Your task to perform on an android device: turn on translation in the chrome app Image 0: 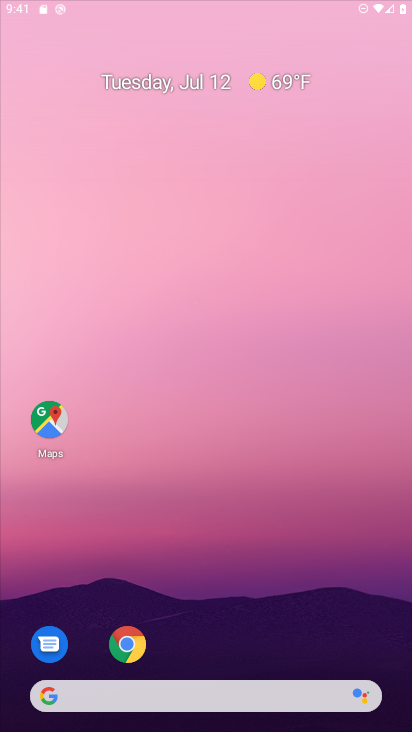
Step 0: press home button
Your task to perform on an android device: turn on translation in the chrome app Image 1: 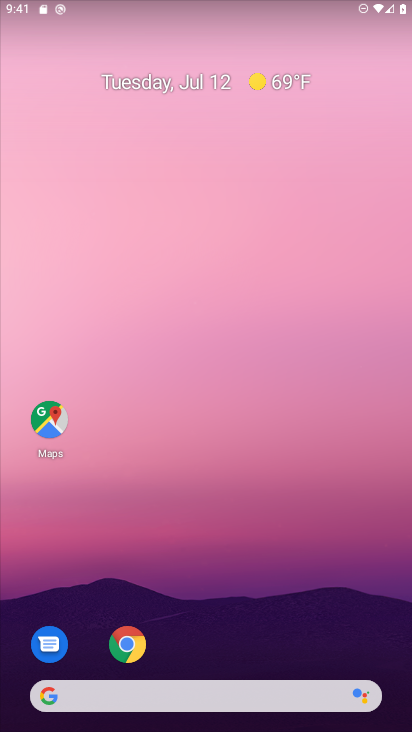
Step 1: click (122, 638)
Your task to perform on an android device: turn on translation in the chrome app Image 2: 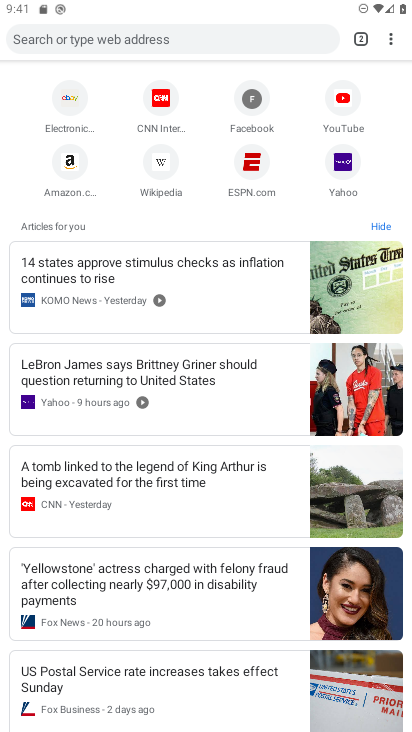
Step 2: click (391, 35)
Your task to perform on an android device: turn on translation in the chrome app Image 3: 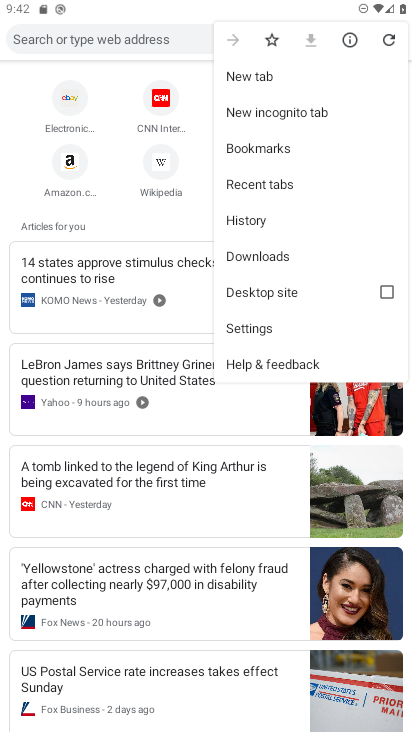
Step 3: click (269, 326)
Your task to perform on an android device: turn on translation in the chrome app Image 4: 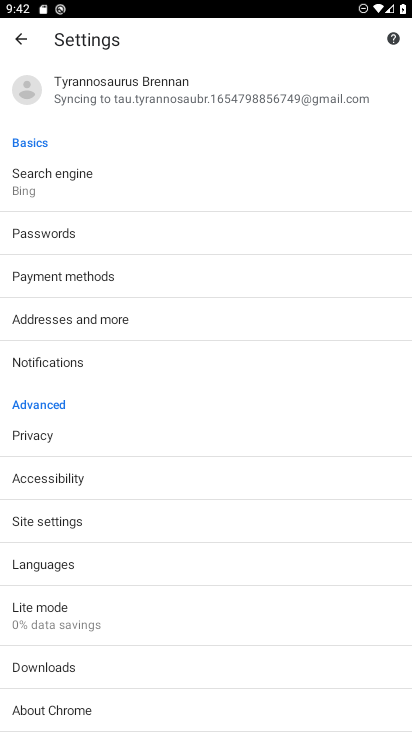
Step 4: click (97, 563)
Your task to perform on an android device: turn on translation in the chrome app Image 5: 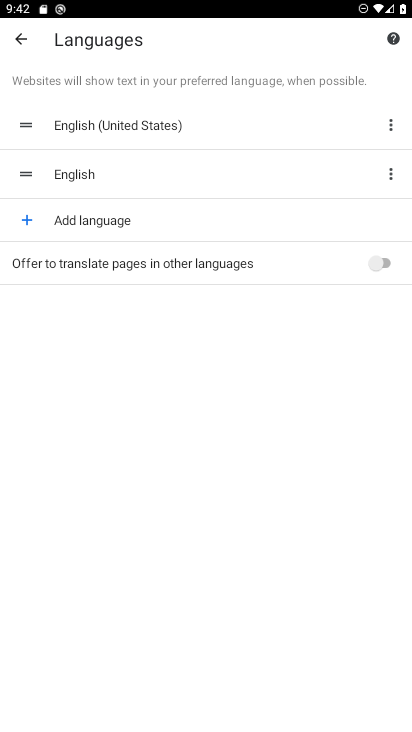
Step 5: click (382, 260)
Your task to perform on an android device: turn on translation in the chrome app Image 6: 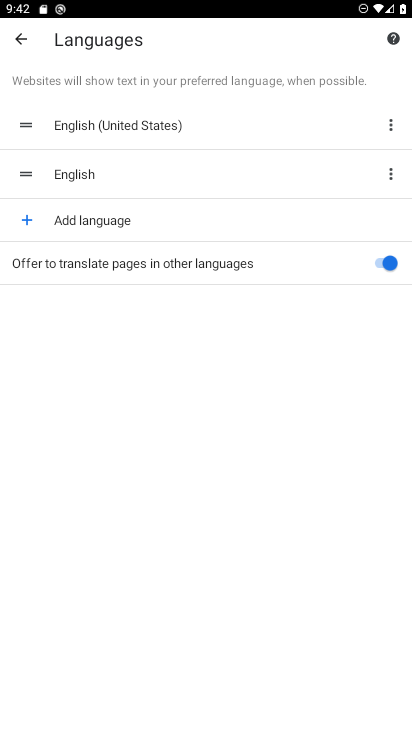
Step 6: task complete